Your task to perform on an android device: turn off translation in the chrome app Image 0: 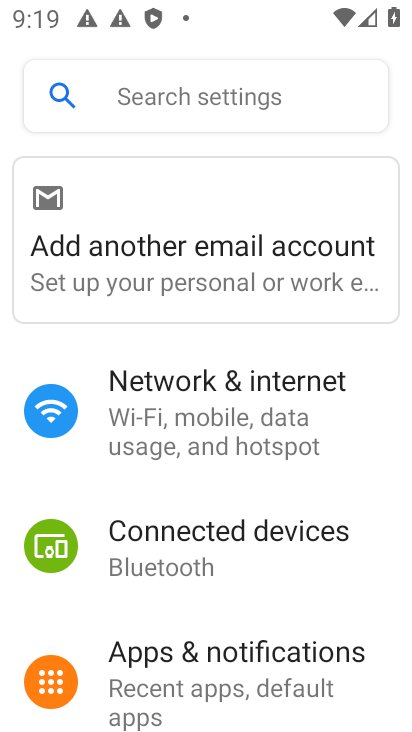
Step 0: press home button
Your task to perform on an android device: turn off translation in the chrome app Image 1: 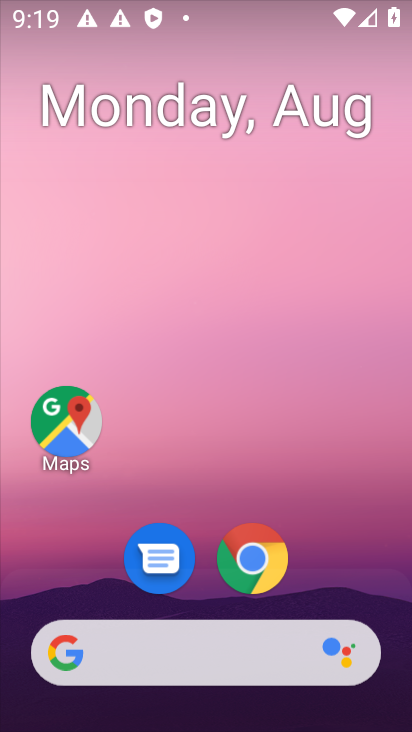
Step 1: click (244, 553)
Your task to perform on an android device: turn off translation in the chrome app Image 2: 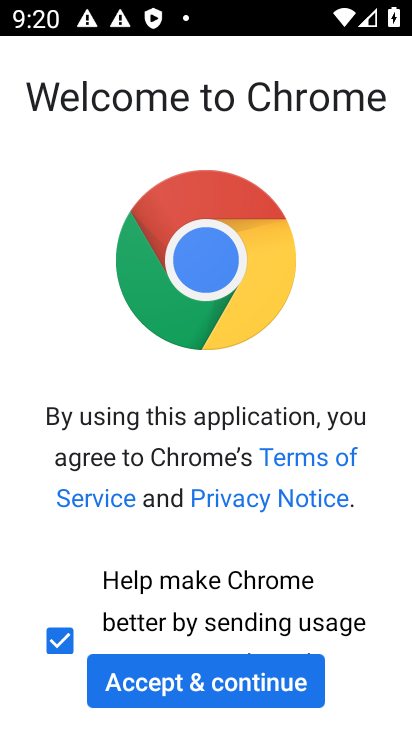
Step 2: click (196, 678)
Your task to perform on an android device: turn off translation in the chrome app Image 3: 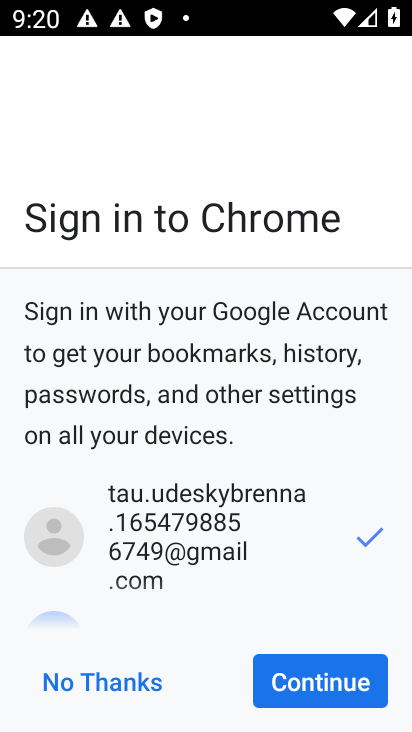
Step 3: click (336, 683)
Your task to perform on an android device: turn off translation in the chrome app Image 4: 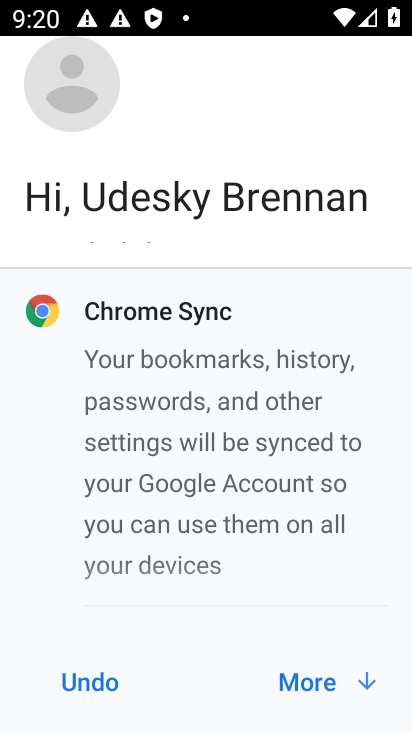
Step 4: click (336, 683)
Your task to perform on an android device: turn off translation in the chrome app Image 5: 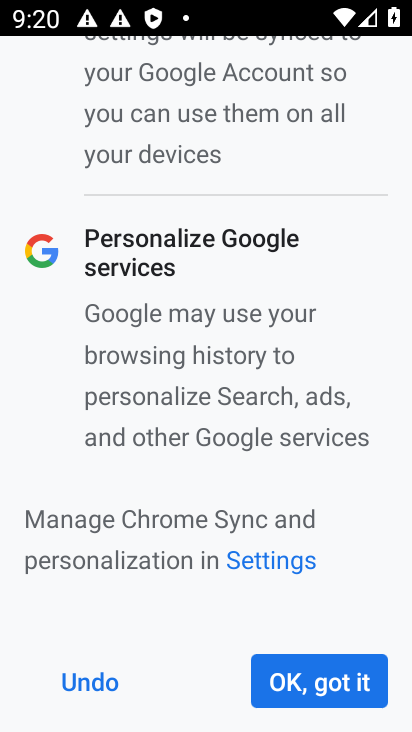
Step 5: click (336, 683)
Your task to perform on an android device: turn off translation in the chrome app Image 6: 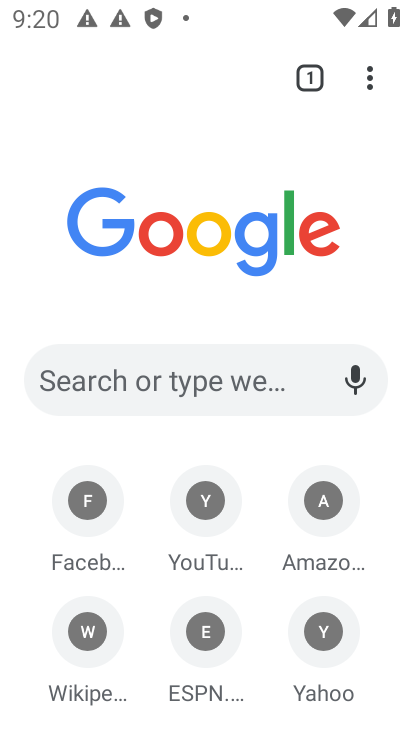
Step 6: click (374, 76)
Your task to perform on an android device: turn off translation in the chrome app Image 7: 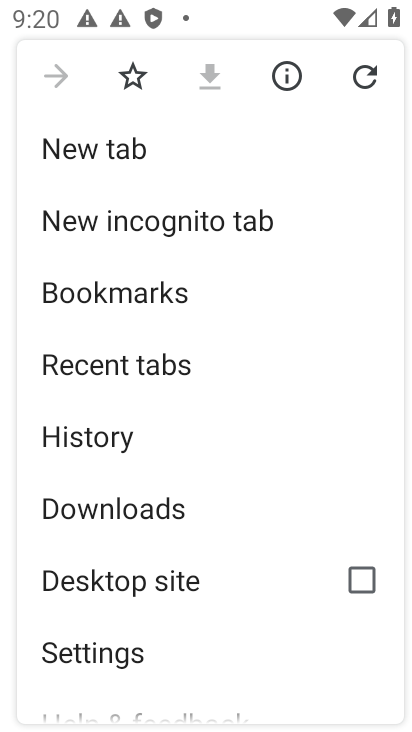
Step 7: click (157, 656)
Your task to perform on an android device: turn off translation in the chrome app Image 8: 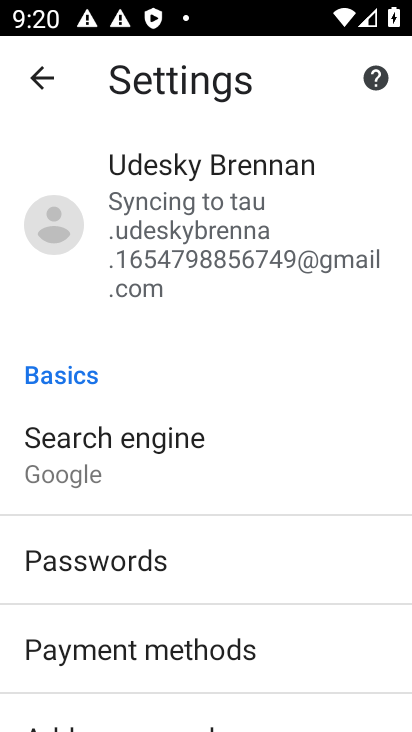
Step 8: drag from (225, 621) to (221, 50)
Your task to perform on an android device: turn off translation in the chrome app Image 9: 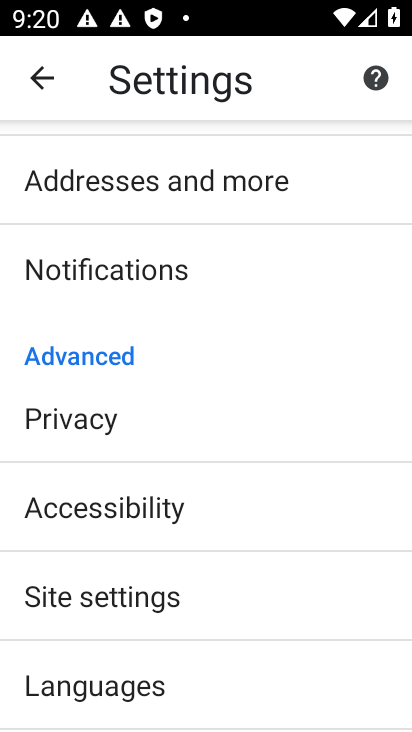
Step 9: click (189, 680)
Your task to perform on an android device: turn off translation in the chrome app Image 10: 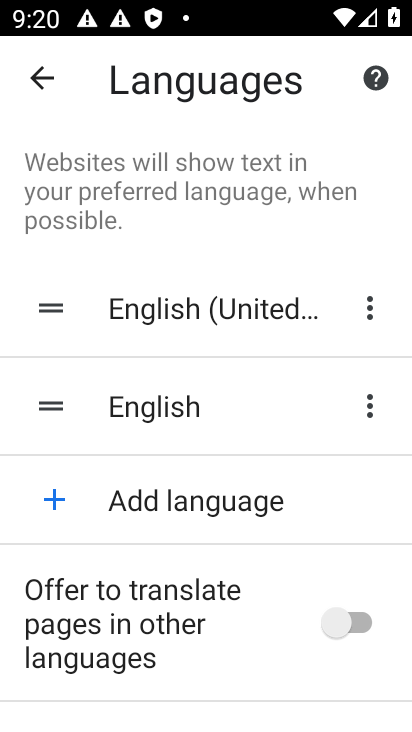
Step 10: task complete